Your task to perform on an android device: Go to Google Image 0: 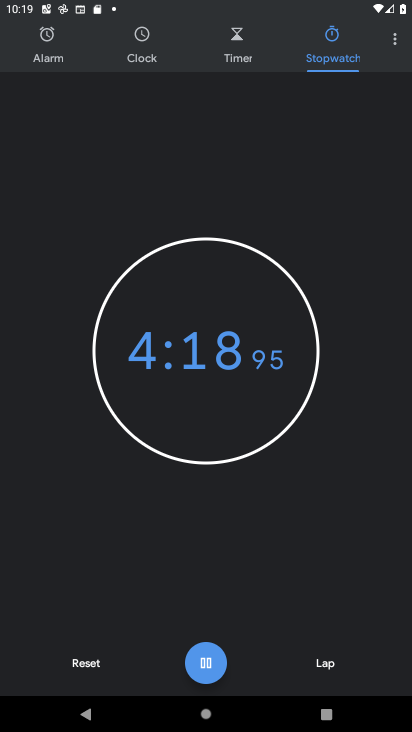
Step 0: press home button
Your task to perform on an android device: Go to Google Image 1: 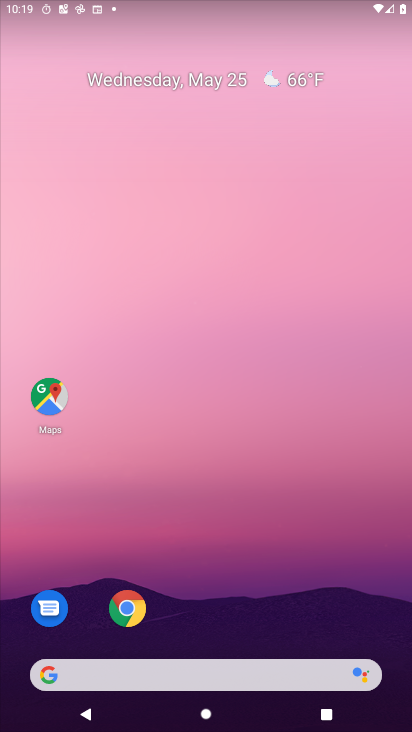
Step 1: drag from (222, 719) to (214, 317)
Your task to perform on an android device: Go to Google Image 2: 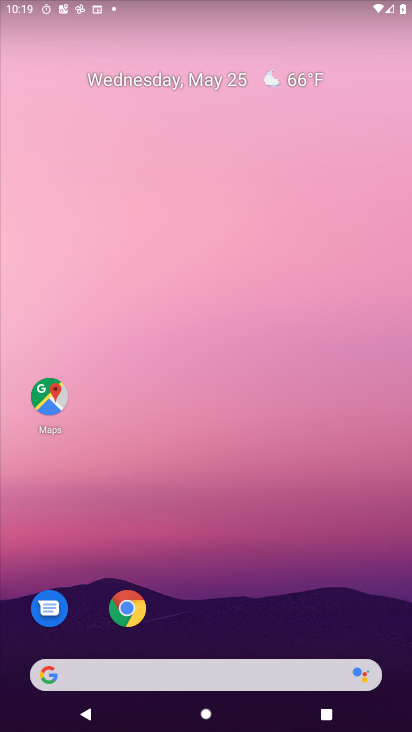
Step 2: drag from (241, 727) to (195, 163)
Your task to perform on an android device: Go to Google Image 3: 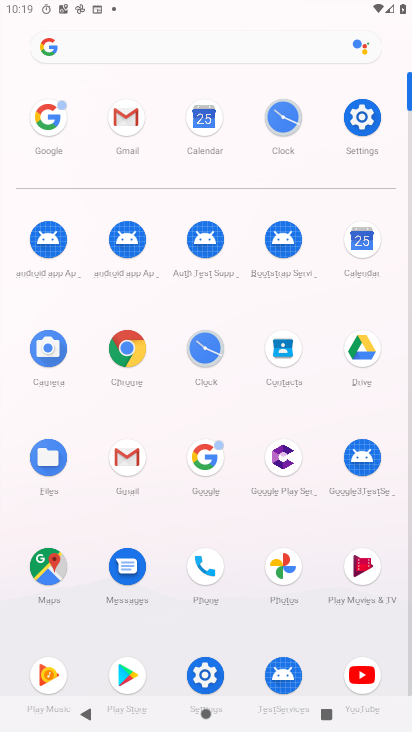
Step 3: click (210, 457)
Your task to perform on an android device: Go to Google Image 4: 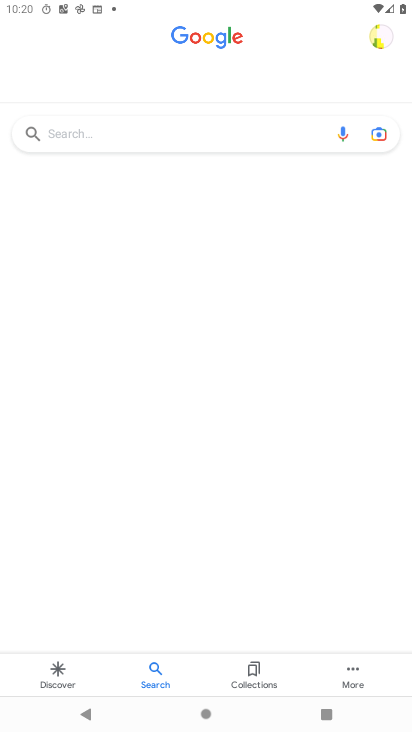
Step 4: task complete